Your task to perform on an android device: Open notification settings Image 0: 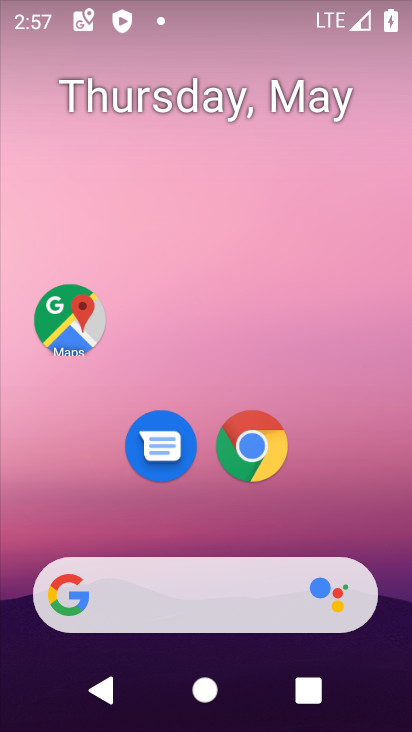
Step 0: drag from (296, 523) to (353, 89)
Your task to perform on an android device: Open notification settings Image 1: 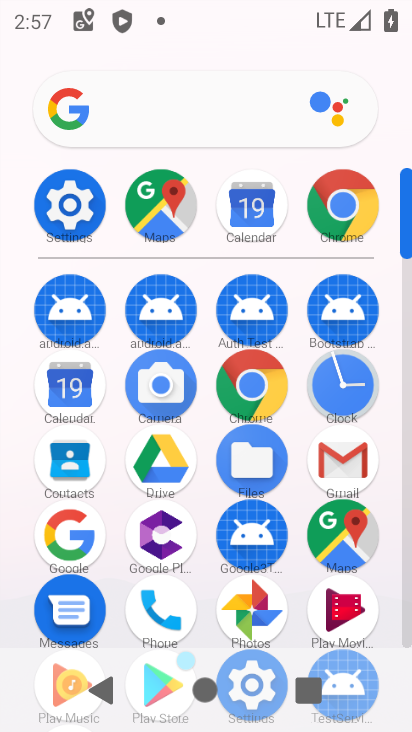
Step 1: click (59, 202)
Your task to perform on an android device: Open notification settings Image 2: 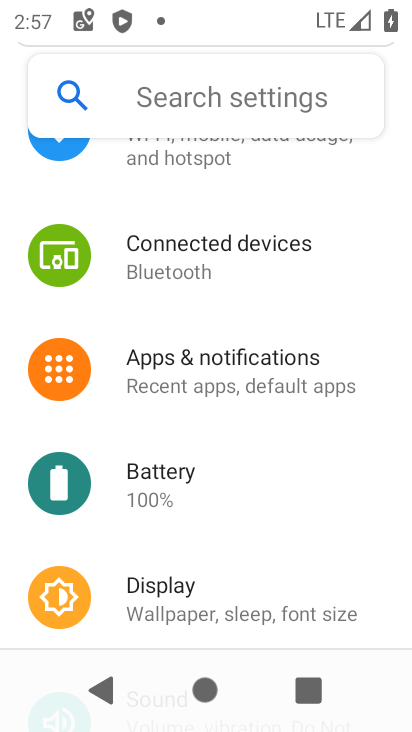
Step 2: click (222, 387)
Your task to perform on an android device: Open notification settings Image 3: 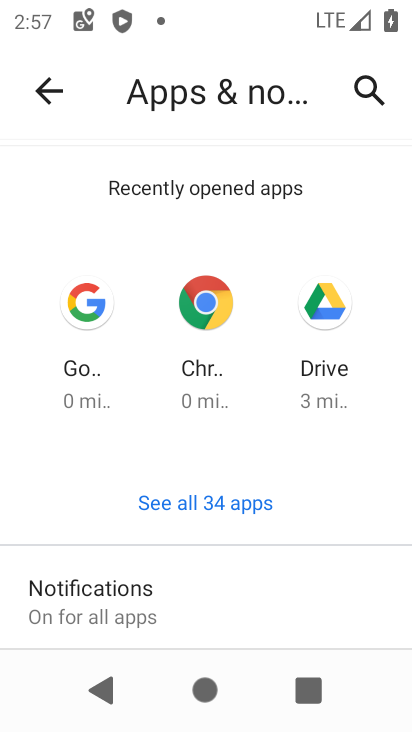
Step 3: click (196, 593)
Your task to perform on an android device: Open notification settings Image 4: 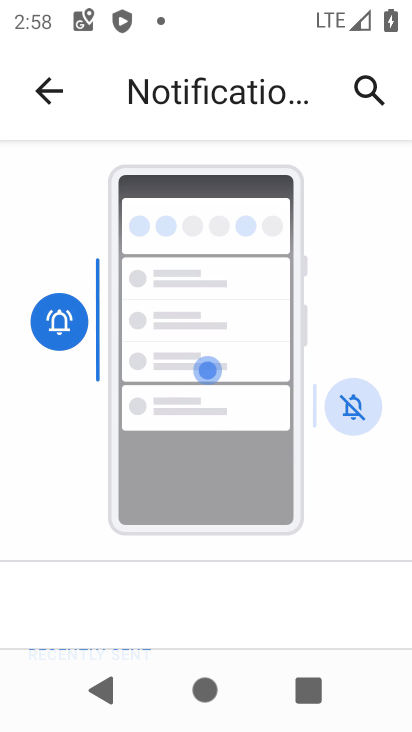
Step 4: task complete